Your task to perform on an android device: allow cookies in the chrome app Image 0: 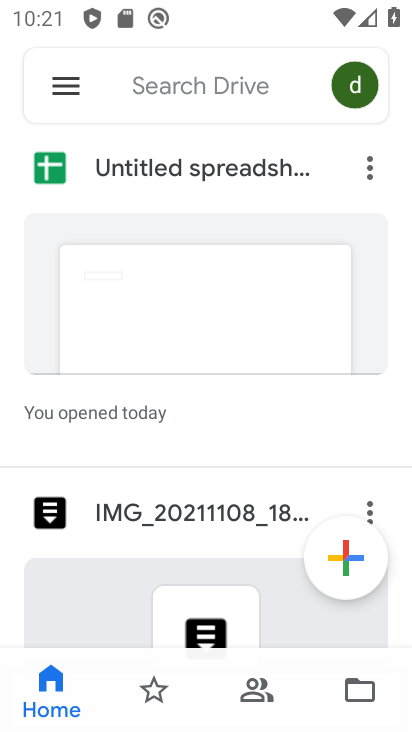
Step 0: press home button
Your task to perform on an android device: allow cookies in the chrome app Image 1: 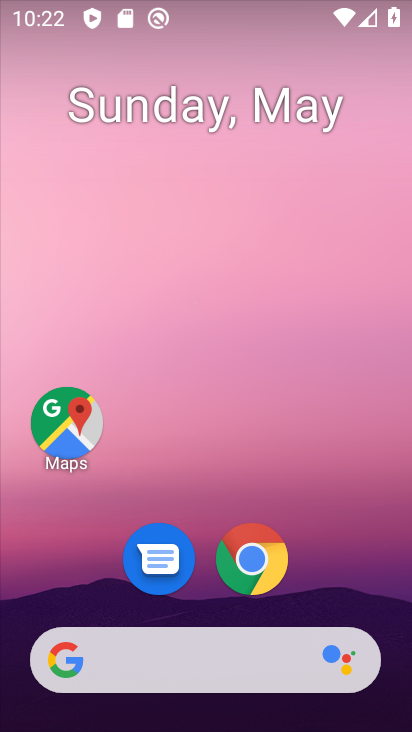
Step 1: click (251, 558)
Your task to perform on an android device: allow cookies in the chrome app Image 2: 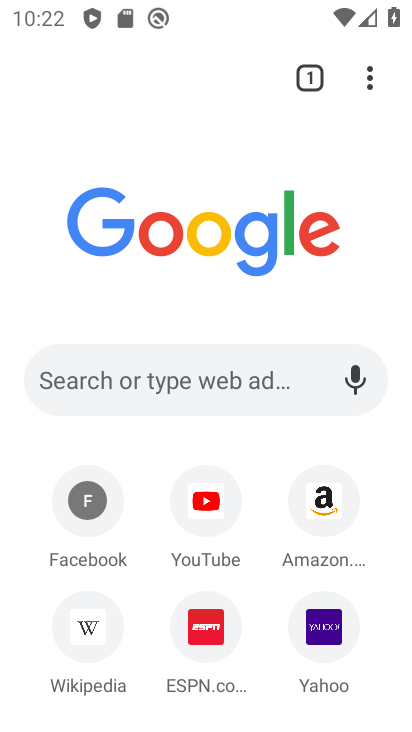
Step 2: click (377, 82)
Your task to perform on an android device: allow cookies in the chrome app Image 3: 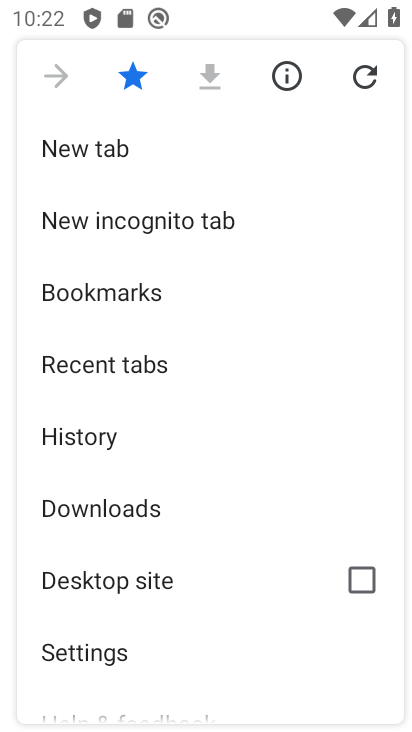
Step 3: drag from (113, 665) to (218, 110)
Your task to perform on an android device: allow cookies in the chrome app Image 4: 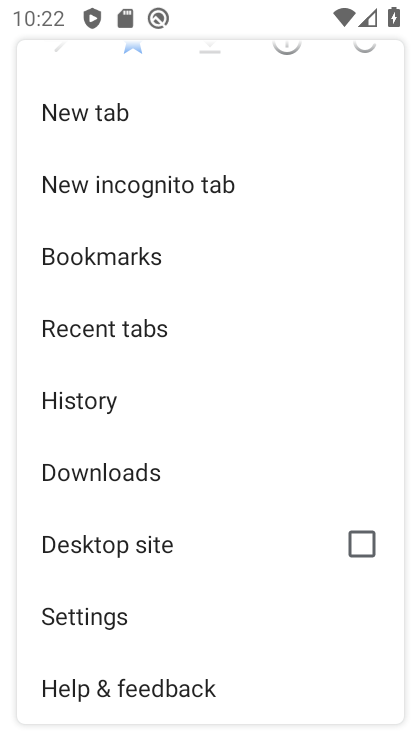
Step 4: drag from (124, 641) to (240, 123)
Your task to perform on an android device: allow cookies in the chrome app Image 5: 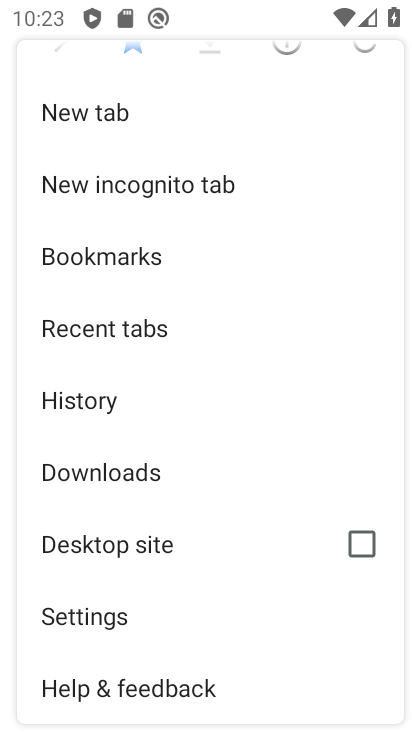
Step 5: drag from (116, 621) to (223, 131)
Your task to perform on an android device: allow cookies in the chrome app Image 6: 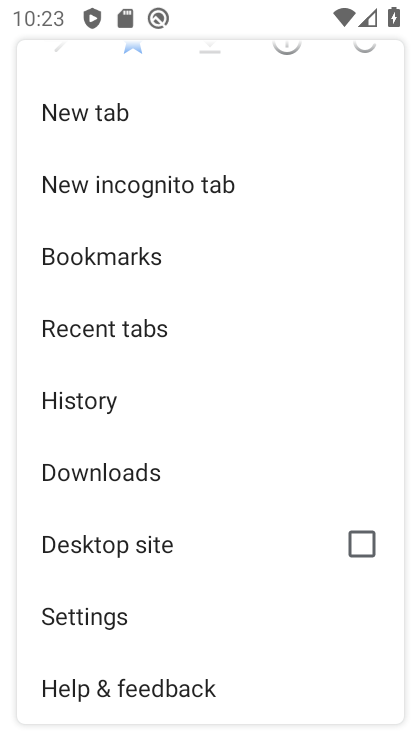
Step 6: click (128, 614)
Your task to perform on an android device: allow cookies in the chrome app Image 7: 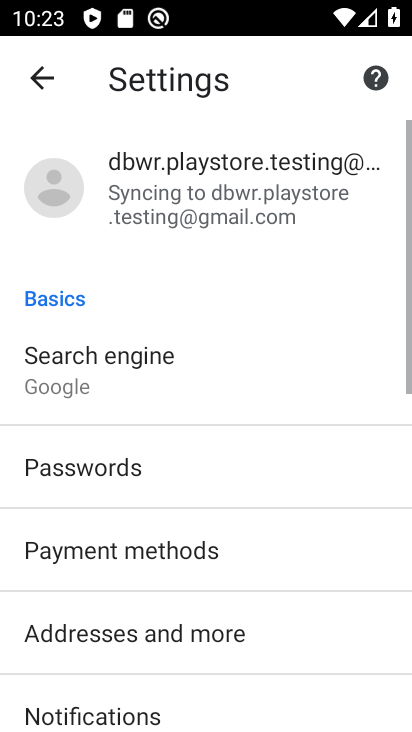
Step 7: drag from (128, 614) to (200, 183)
Your task to perform on an android device: allow cookies in the chrome app Image 8: 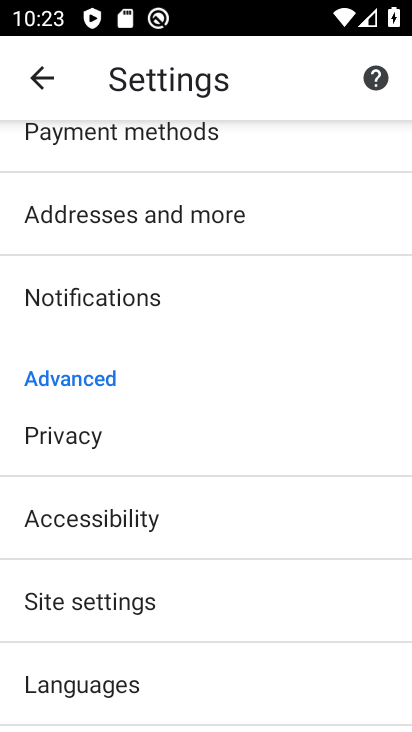
Step 8: click (90, 625)
Your task to perform on an android device: allow cookies in the chrome app Image 9: 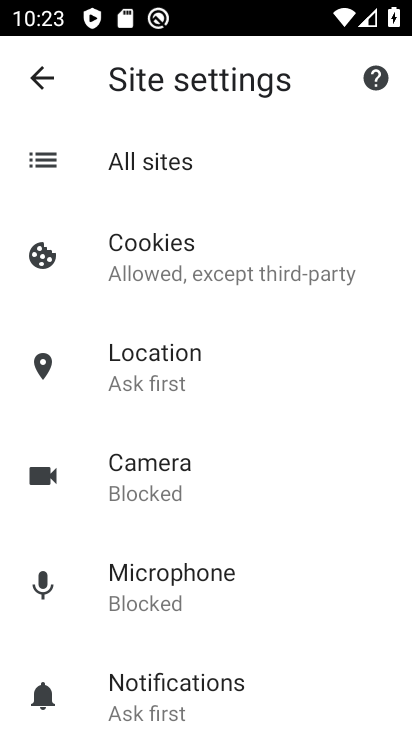
Step 9: click (219, 244)
Your task to perform on an android device: allow cookies in the chrome app Image 10: 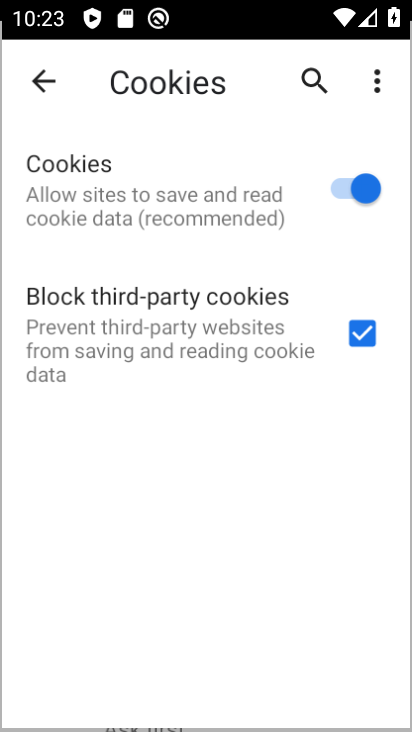
Step 10: task complete